Your task to perform on an android device: see creations saved in the google photos Image 0: 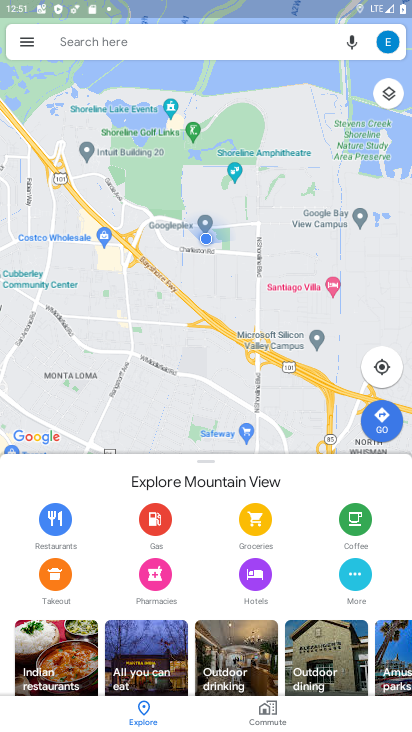
Step 0: press home button
Your task to perform on an android device: see creations saved in the google photos Image 1: 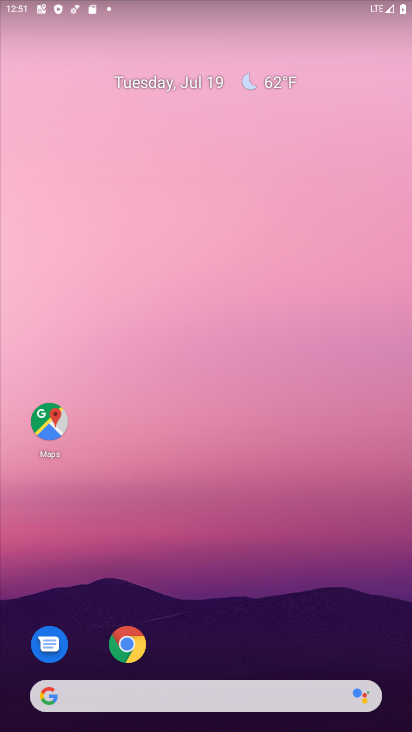
Step 1: drag from (189, 547) to (178, 66)
Your task to perform on an android device: see creations saved in the google photos Image 2: 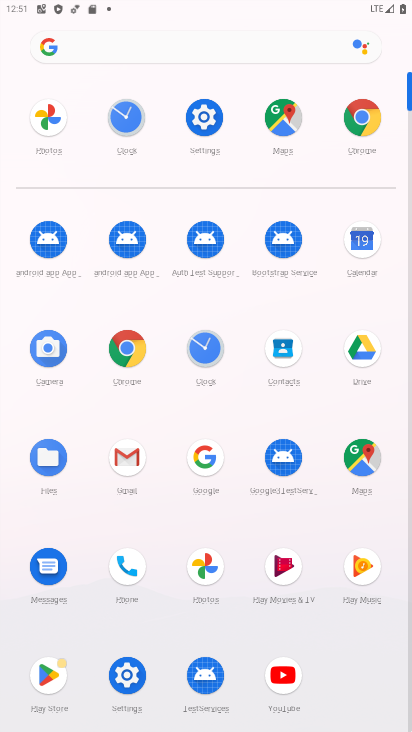
Step 2: click (43, 108)
Your task to perform on an android device: see creations saved in the google photos Image 3: 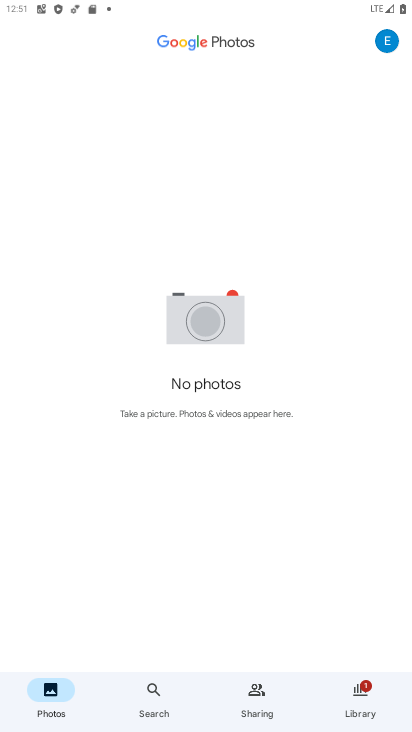
Step 3: click (149, 685)
Your task to perform on an android device: see creations saved in the google photos Image 4: 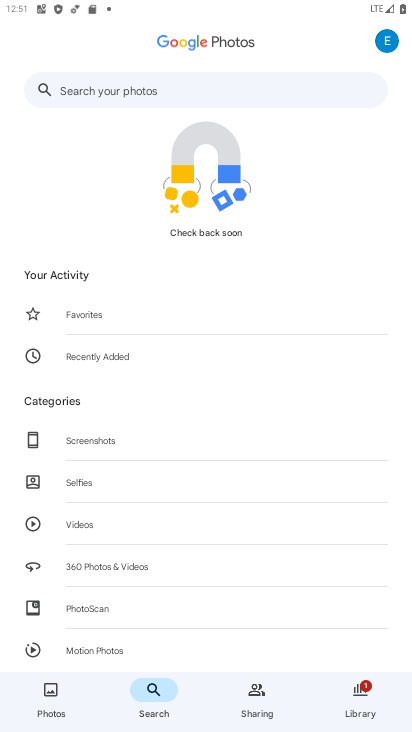
Step 4: click (121, 83)
Your task to perform on an android device: see creations saved in the google photos Image 5: 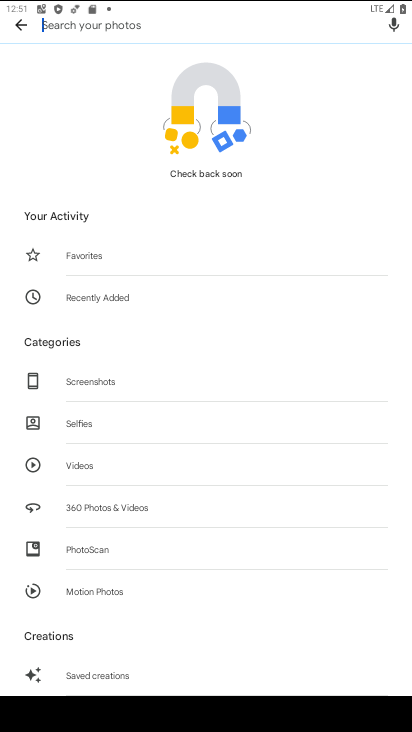
Step 5: click (43, 634)
Your task to perform on an android device: see creations saved in the google photos Image 6: 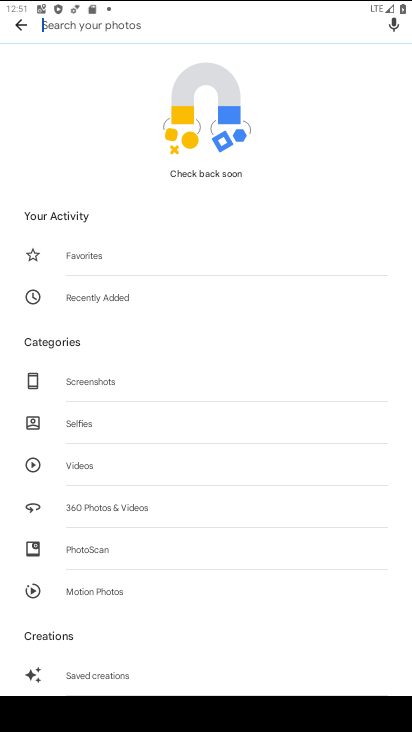
Step 6: click (83, 671)
Your task to perform on an android device: see creations saved in the google photos Image 7: 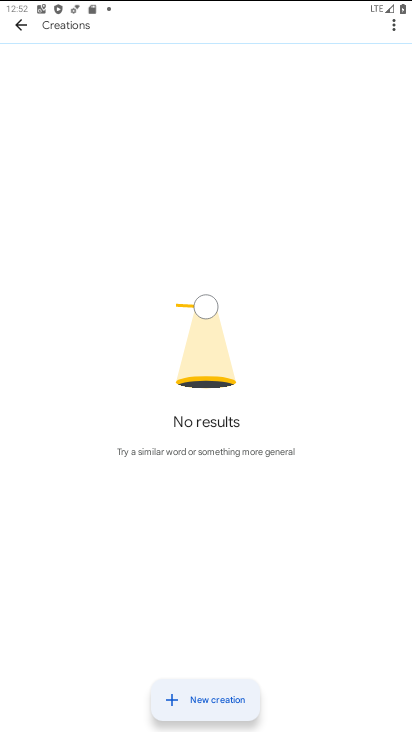
Step 7: task complete